Your task to perform on an android device: Search for a dining table on crateandbarrel.com Image 0: 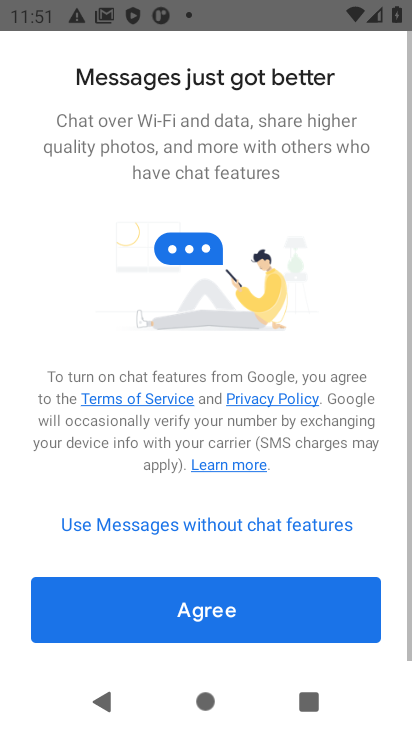
Step 0: press home button
Your task to perform on an android device: Search for a dining table on crateandbarrel.com Image 1: 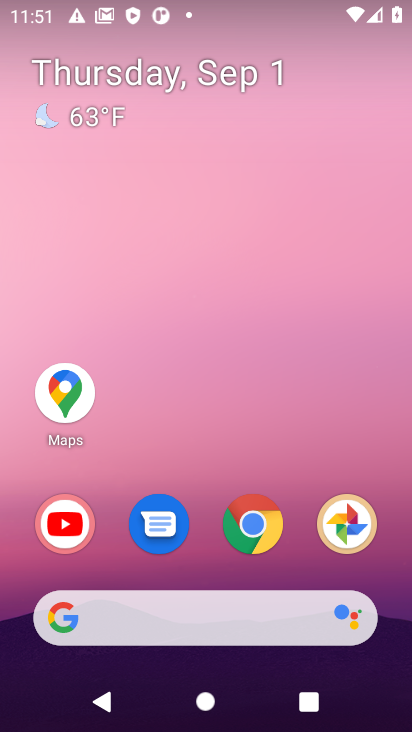
Step 1: click (247, 537)
Your task to perform on an android device: Search for a dining table on crateandbarrel.com Image 2: 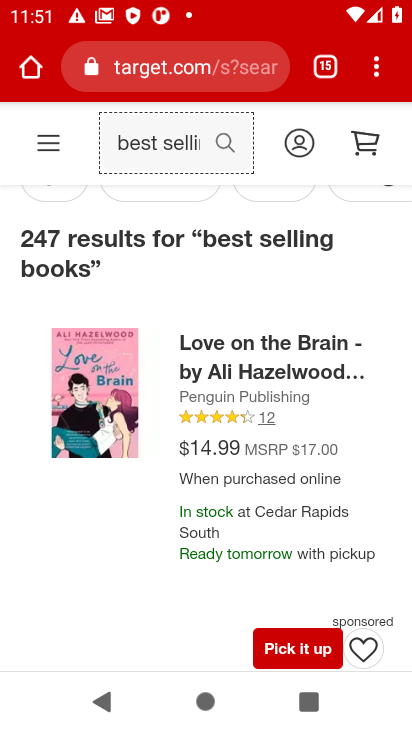
Step 2: click (328, 67)
Your task to perform on an android device: Search for a dining table on crateandbarrel.com Image 3: 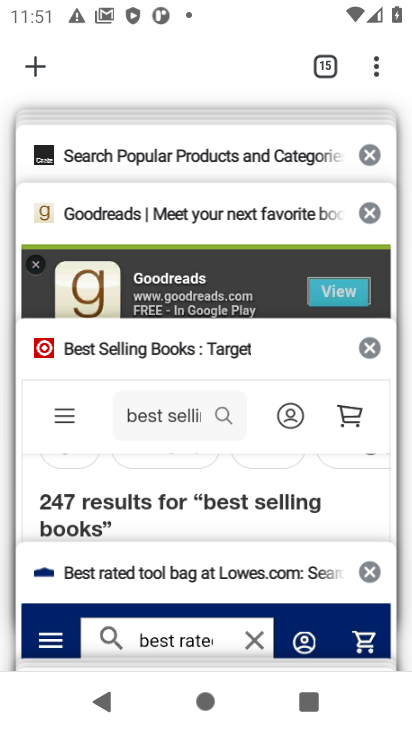
Step 3: click (181, 154)
Your task to perform on an android device: Search for a dining table on crateandbarrel.com Image 4: 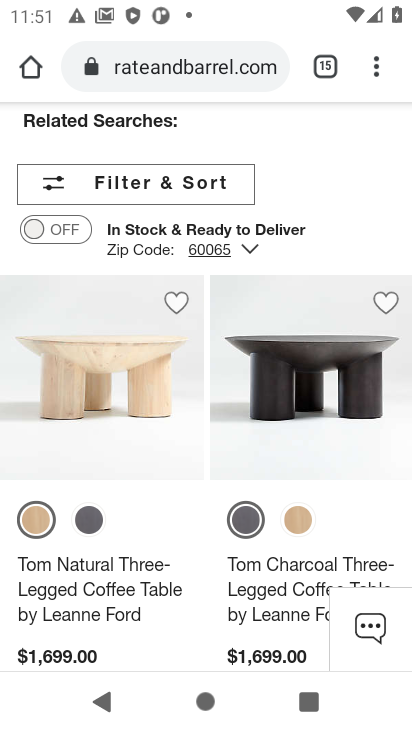
Step 4: drag from (297, 151) to (307, 496)
Your task to perform on an android device: Search for a dining table on crateandbarrel.com Image 5: 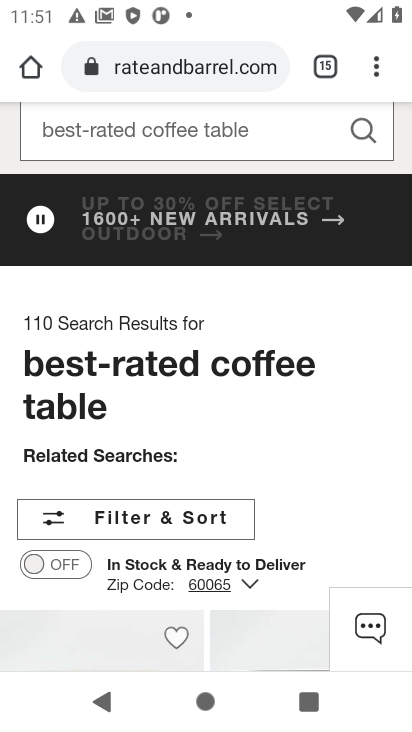
Step 5: click (302, 133)
Your task to perform on an android device: Search for a dining table on crateandbarrel.com Image 6: 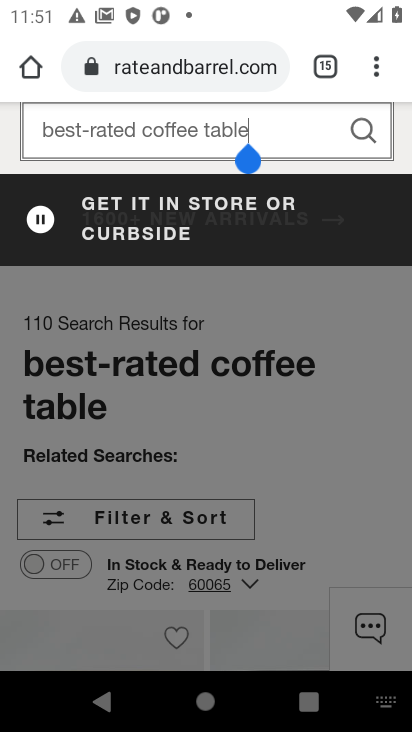
Step 6: drag from (306, 240) to (319, 484)
Your task to perform on an android device: Search for a dining table on crateandbarrel.com Image 7: 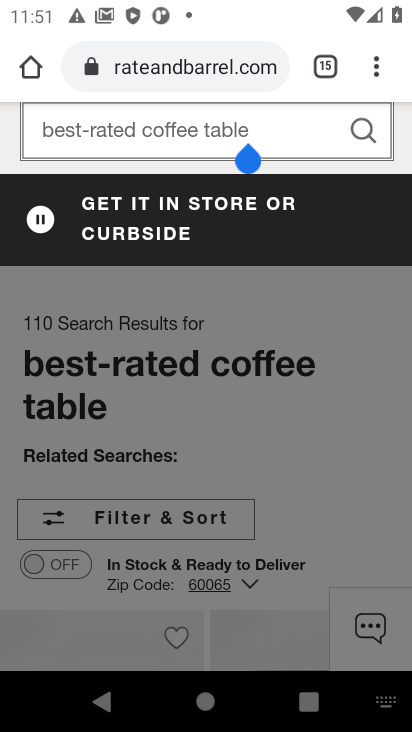
Step 7: click (319, 484)
Your task to perform on an android device: Search for a dining table on crateandbarrel.com Image 8: 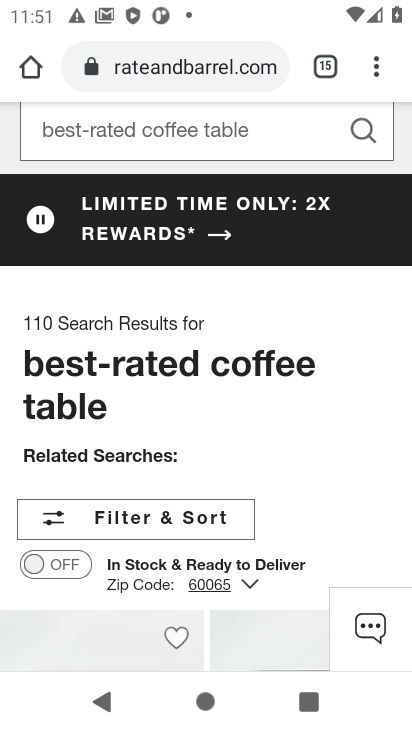
Step 8: drag from (284, 326) to (307, 557)
Your task to perform on an android device: Search for a dining table on crateandbarrel.com Image 9: 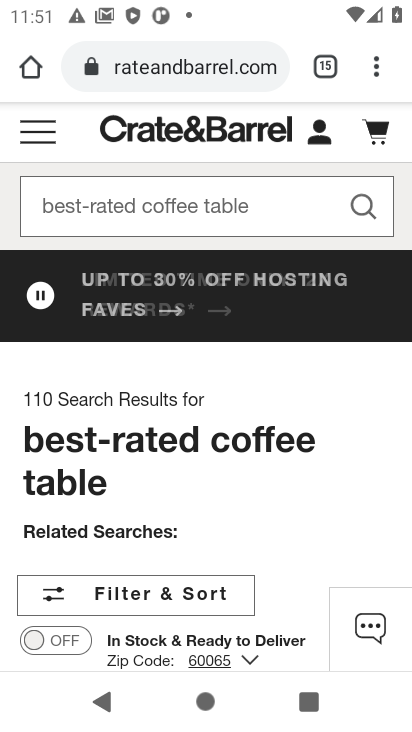
Step 9: click (201, 132)
Your task to perform on an android device: Search for a dining table on crateandbarrel.com Image 10: 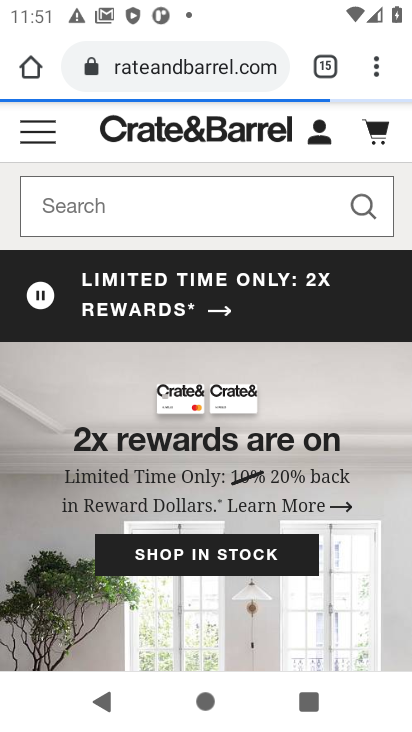
Step 10: click (190, 213)
Your task to perform on an android device: Search for a dining table on crateandbarrel.com Image 11: 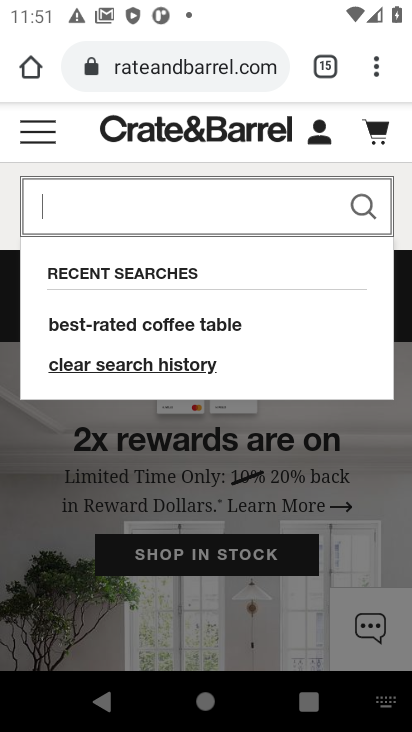
Step 11: type "dining table"
Your task to perform on an android device: Search for a dining table on crateandbarrel.com Image 12: 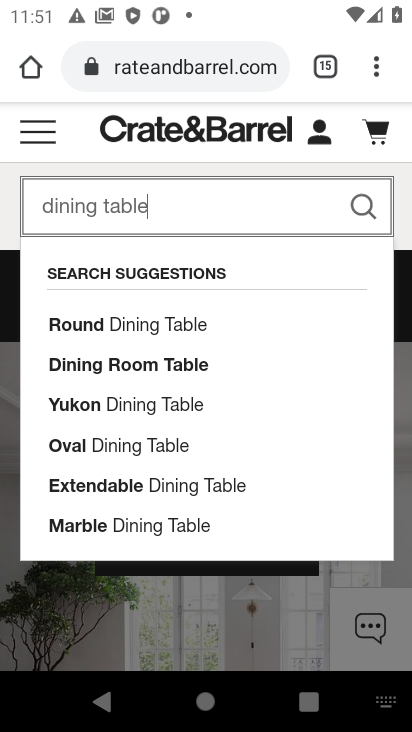
Step 12: click (345, 202)
Your task to perform on an android device: Search for a dining table on crateandbarrel.com Image 13: 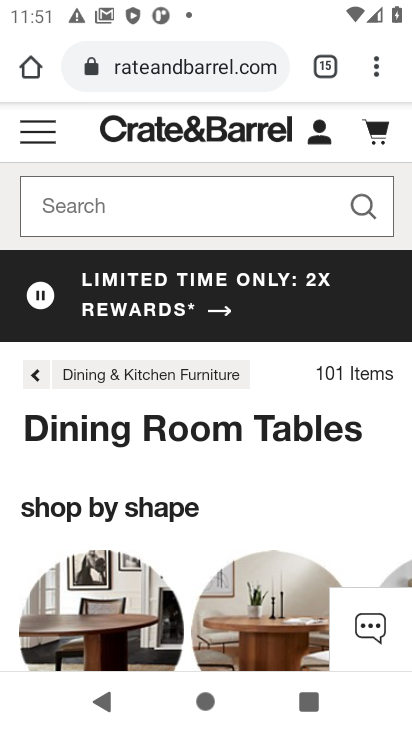
Step 13: task complete